Your task to perform on an android device: Go to internet settings Image 0: 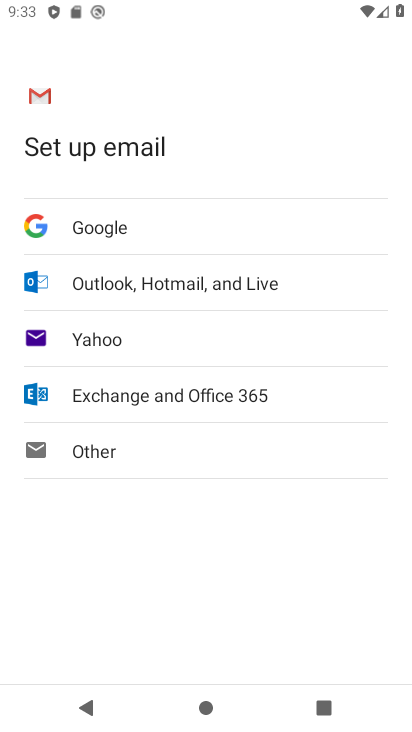
Step 0: press home button
Your task to perform on an android device: Go to internet settings Image 1: 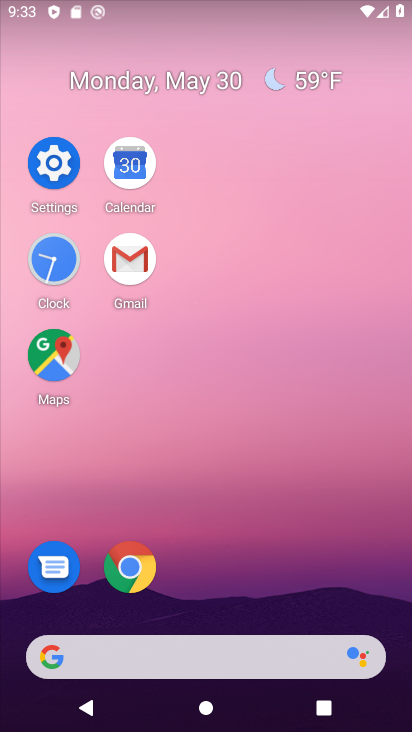
Step 1: click (55, 176)
Your task to perform on an android device: Go to internet settings Image 2: 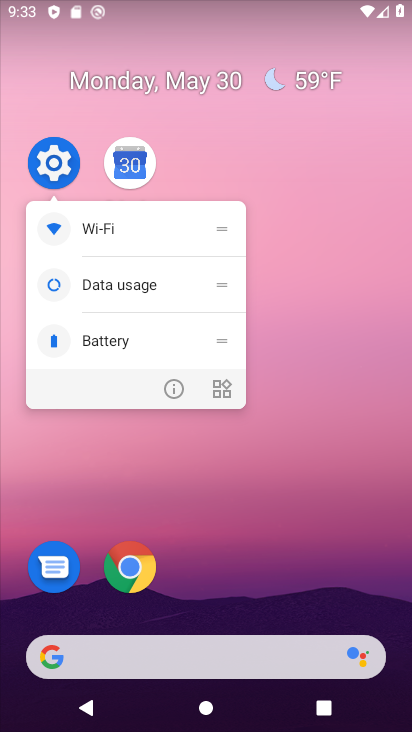
Step 2: click (63, 165)
Your task to perform on an android device: Go to internet settings Image 3: 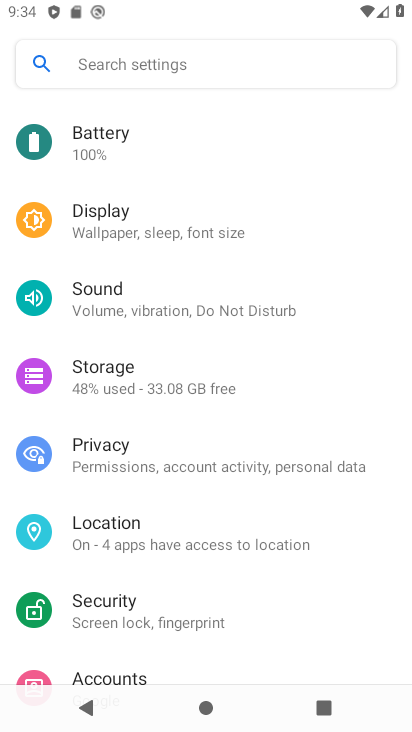
Step 3: drag from (282, 190) to (281, 548)
Your task to perform on an android device: Go to internet settings Image 4: 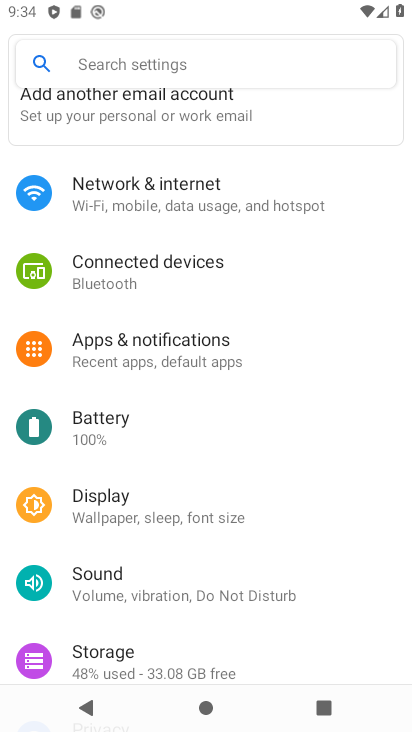
Step 4: click (266, 199)
Your task to perform on an android device: Go to internet settings Image 5: 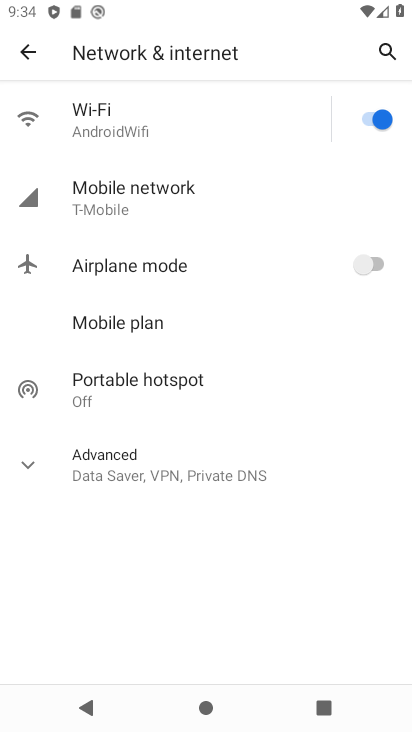
Step 5: task complete